Your task to perform on an android device: open a new tab in the chrome app Image 0: 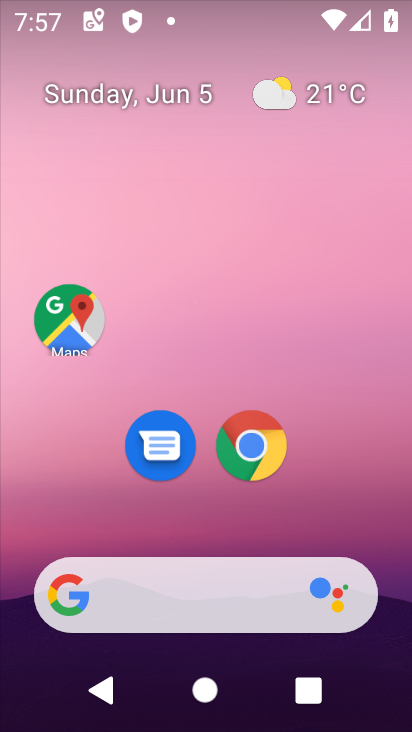
Step 0: click (255, 427)
Your task to perform on an android device: open a new tab in the chrome app Image 1: 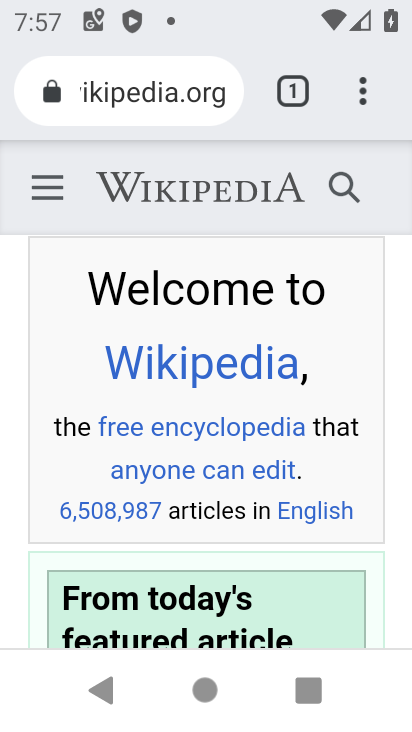
Step 1: click (298, 86)
Your task to perform on an android device: open a new tab in the chrome app Image 2: 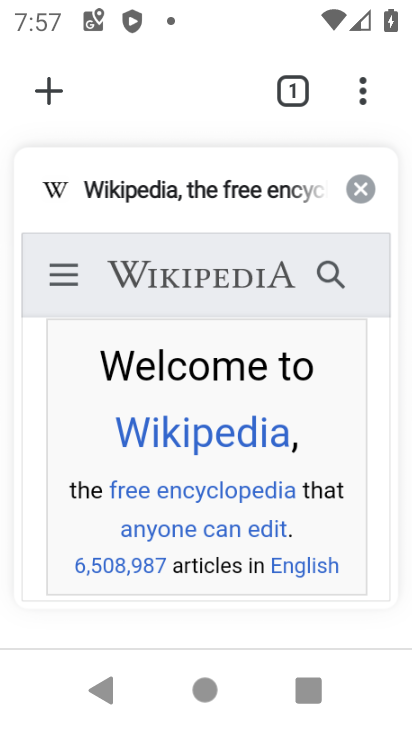
Step 2: click (49, 90)
Your task to perform on an android device: open a new tab in the chrome app Image 3: 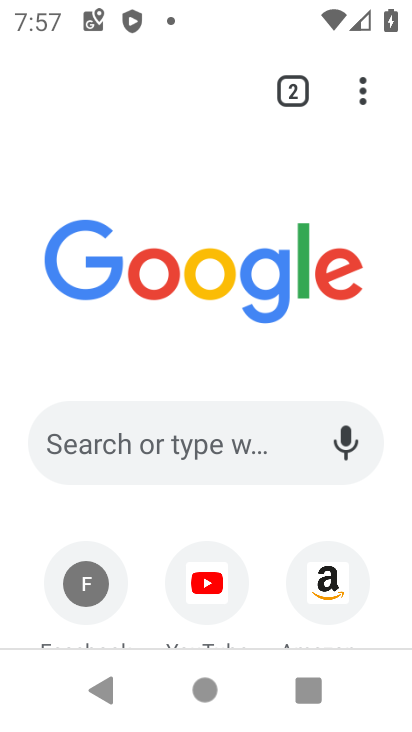
Step 3: task complete